Your task to perform on an android device: stop showing notifications on the lock screen Image 0: 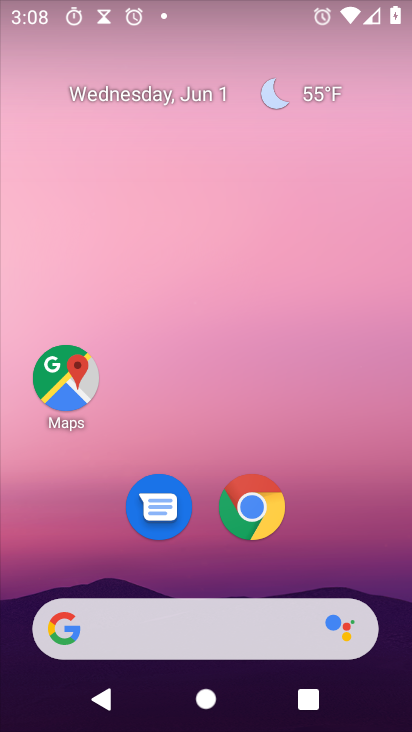
Step 0: drag from (346, 590) to (241, 0)
Your task to perform on an android device: stop showing notifications on the lock screen Image 1: 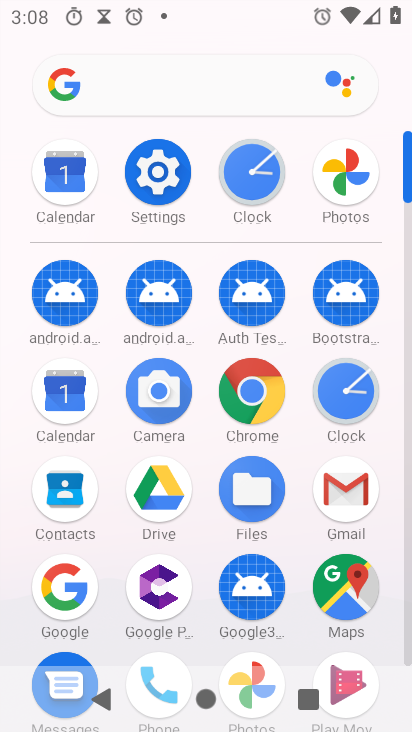
Step 1: click (158, 181)
Your task to perform on an android device: stop showing notifications on the lock screen Image 2: 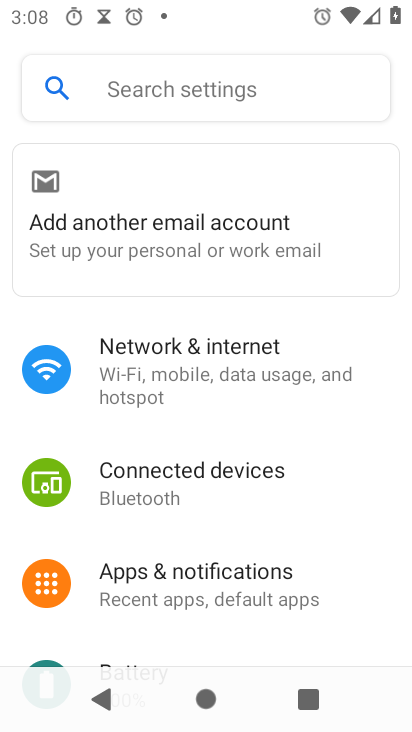
Step 2: click (203, 578)
Your task to perform on an android device: stop showing notifications on the lock screen Image 3: 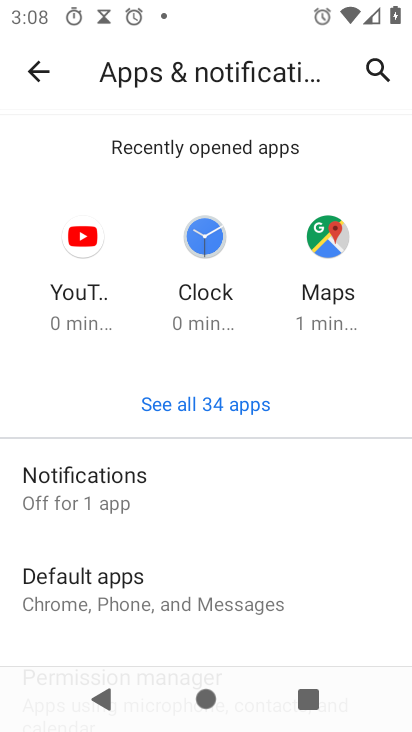
Step 3: click (74, 485)
Your task to perform on an android device: stop showing notifications on the lock screen Image 4: 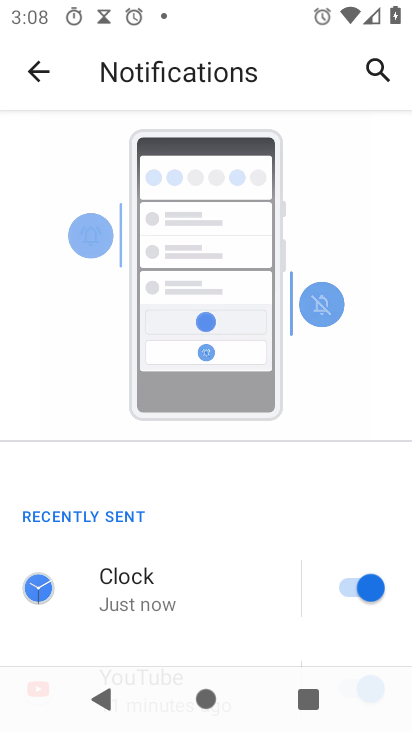
Step 4: drag from (208, 589) to (209, 211)
Your task to perform on an android device: stop showing notifications on the lock screen Image 5: 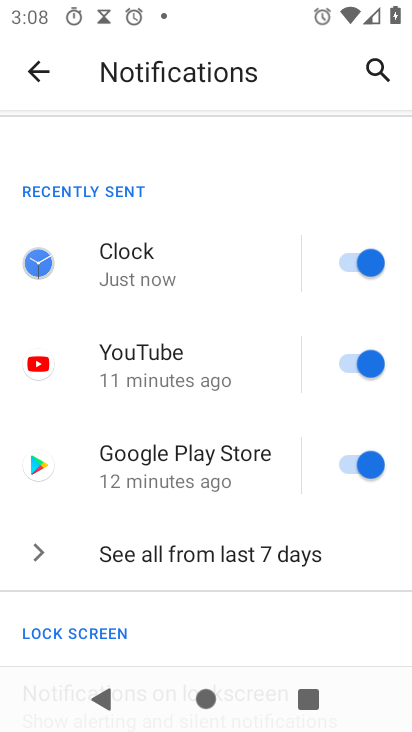
Step 5: drag from (183, 495) to (175, 135)
Your task to perform on an android device: stop showing notifications on the lock screen Image 6: 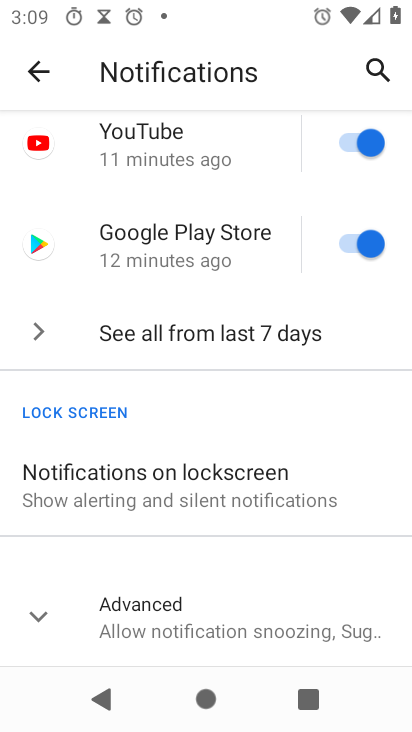
Step 6: click (123, 466)
Your task to perform on an android device: stop showing notifications on the lock screen Image 7: 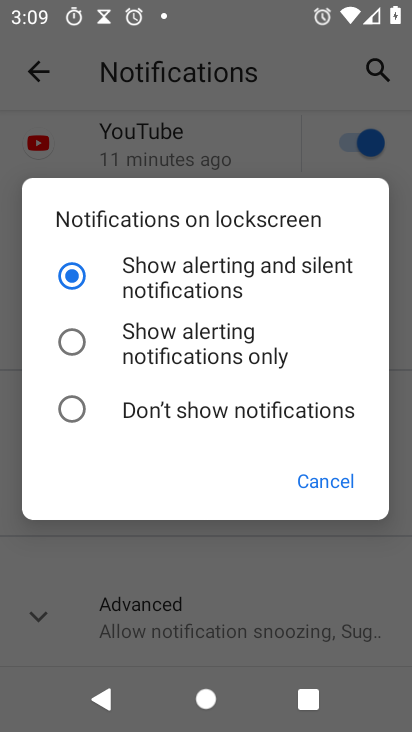
Step 7: click (69, 408)
Your task to perform on an android device: stop showing notifications on the lock screen Image 8: 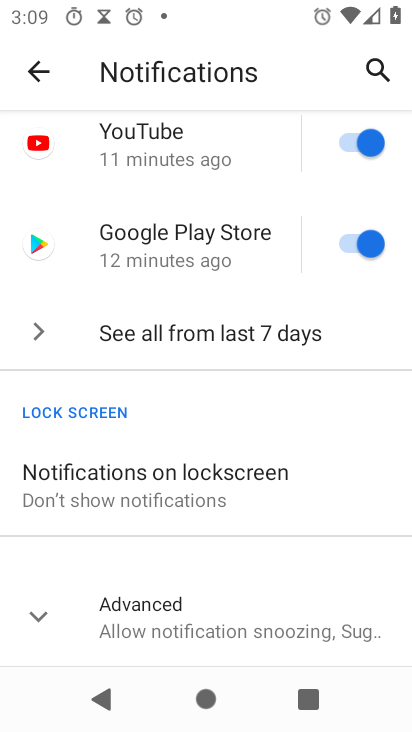
Step 8: task complete